Your task to perform on an android device: allow notifications from all sites in the chrome app Image 0: 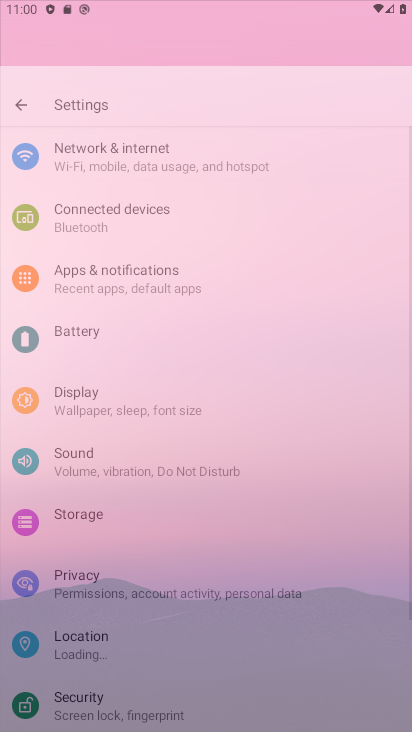
Step 0: press home button
Your task to perform on an android device: allow notifications from all sites in the chrome app Image 1: 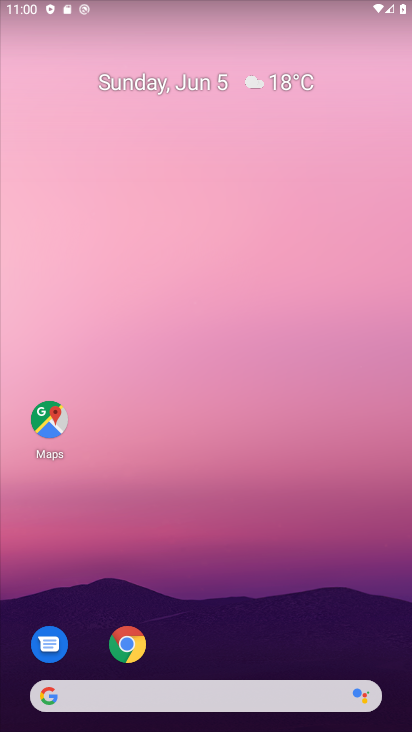
Step 1: drag from (272, 714) to (200, 243)
Your task to perform on an android device: allow notifications from all sites in the chrome app Image 2: 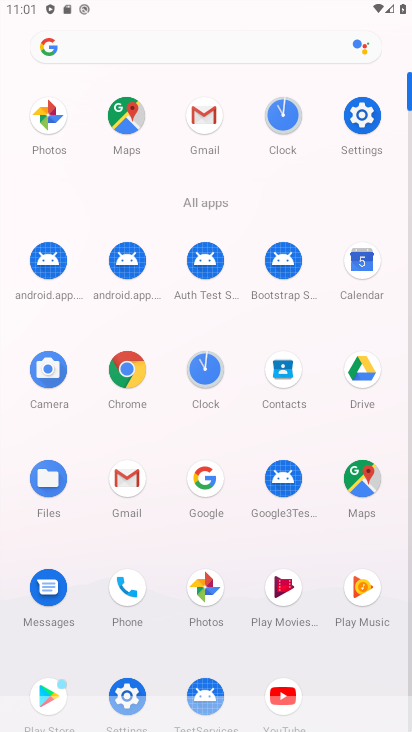
Step 2: click (116, 370)
Your task to perform on an android device: allow notifications from all sites in the chrome app Image 3: 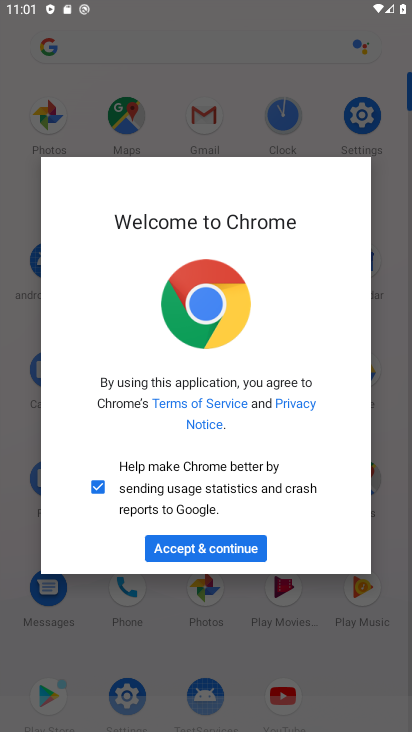
Step 3: click (215, 554)
Your task to perform on an android device: allow notifications from all sites in the chrome app Image 4: 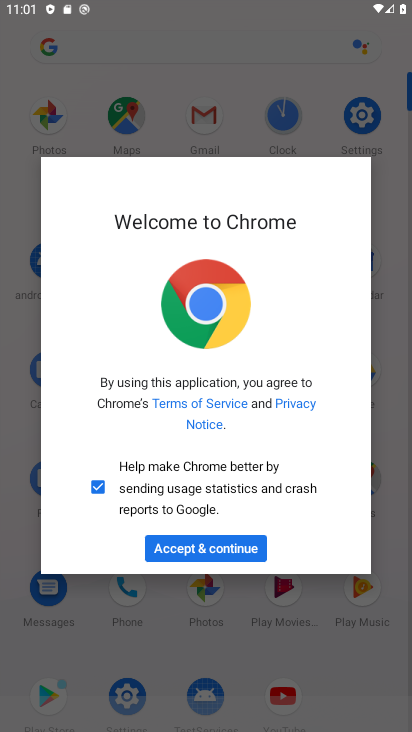
Step 4: click (216, 539)
Your task to perform on an android device: allow notifications from all sites in the chrome app Image 5: 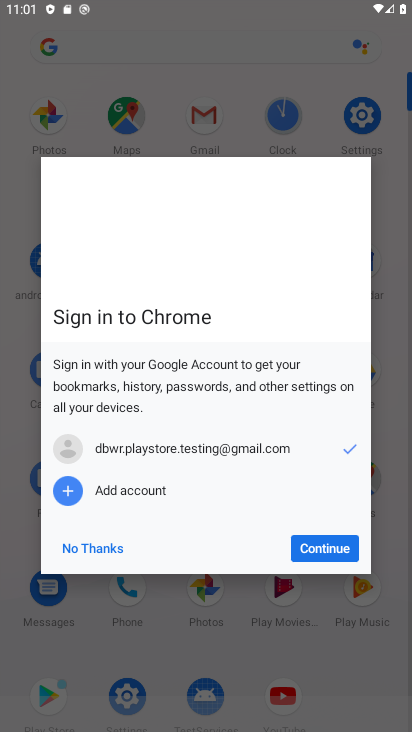
Step 5: click (294, 547)
Your task to perform on an android device: allow notifications from all sites in the chrome app Image 6: 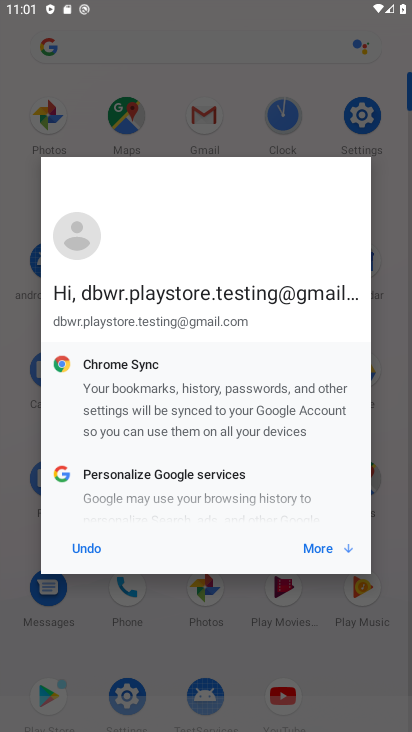
Step 6: click (328, 552)
Your task to perform on an android device: allow notifications from all sites in the chrome app Image 7: 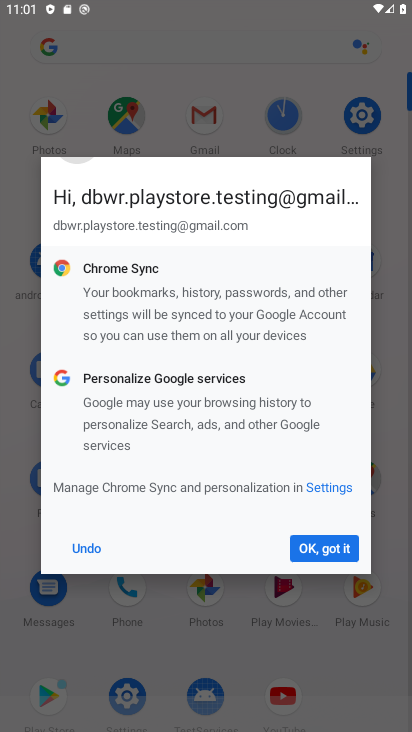
Step 7: click (327, 548)
Your task to perform on an android device: allow notifications from all sites in the chrome app Image 8: 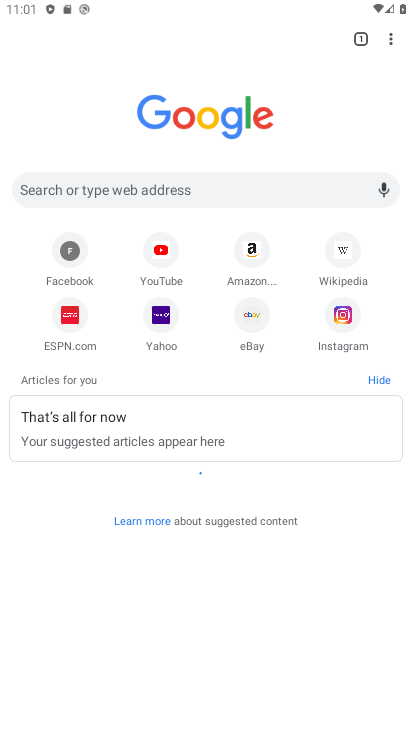
Step 8: click (392, 45)
Your task to perform on an android device: allow notifications from all sites in the chrome app Image 9: 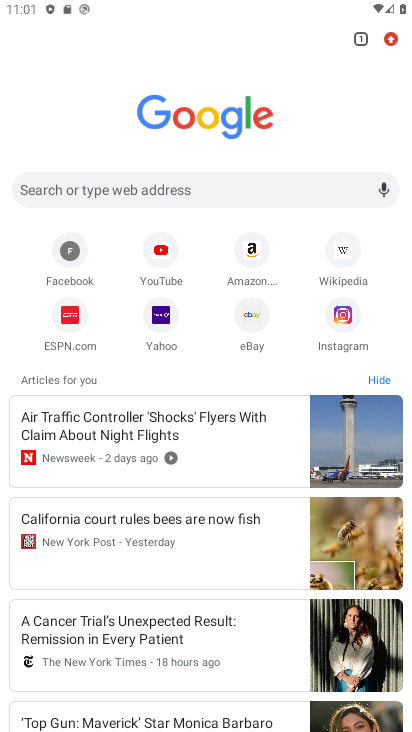
Step 9: click (375, 35)
Your task to perform on an android device: allow notifications from all sites in the chrome app Image 10: 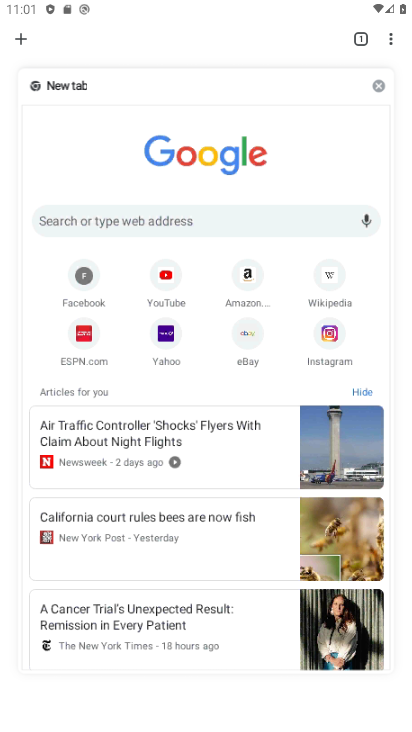
Step 10: click (391, 43)
Your task to perform on an android device: allow notifications from all sites in the chrome app Image 11: 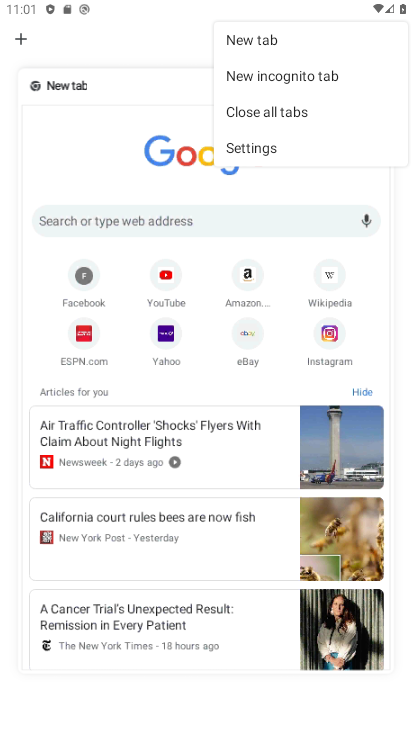
Step 11: click (229, 150)
Your task to perform on an android device: allow notifications from all sites in the chrome app Image 12: 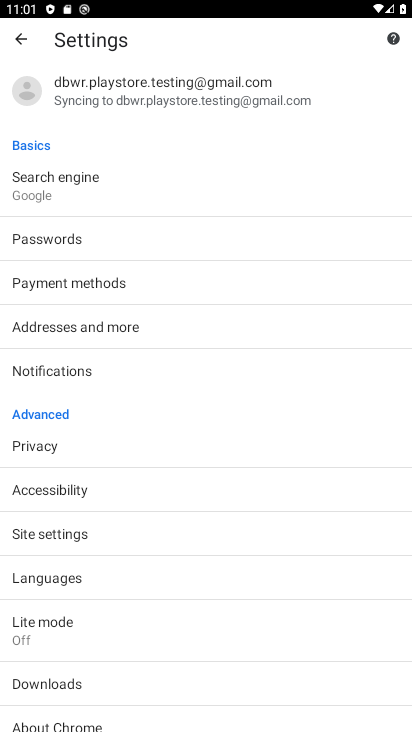
Step 12: drag from (66, 653) to (101, 575)
Your task to perform on an android device: allow notifications from all sites in the chrome app Image 13: 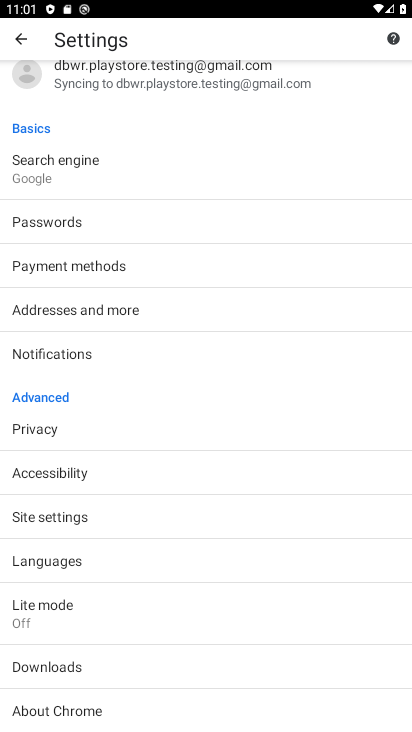
Step 13: click (86, 516)
Your task to perform on an android device: allow notifications from all sites in the chrome app Image 14: 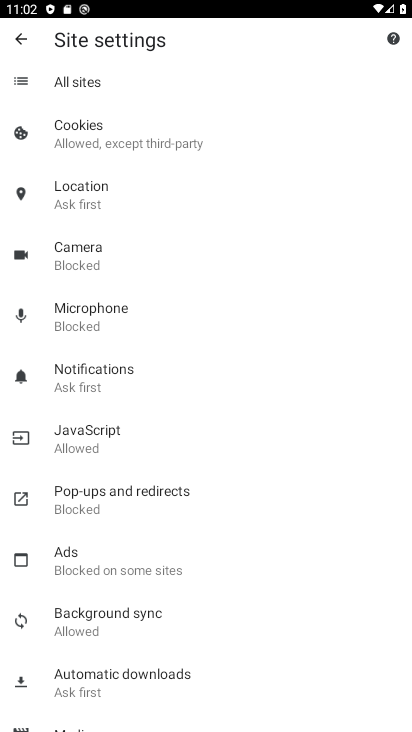
Step 14: click (107, 368)
Your task to perform on an android device: allow notifications from all sites in the chrome app Image 15: 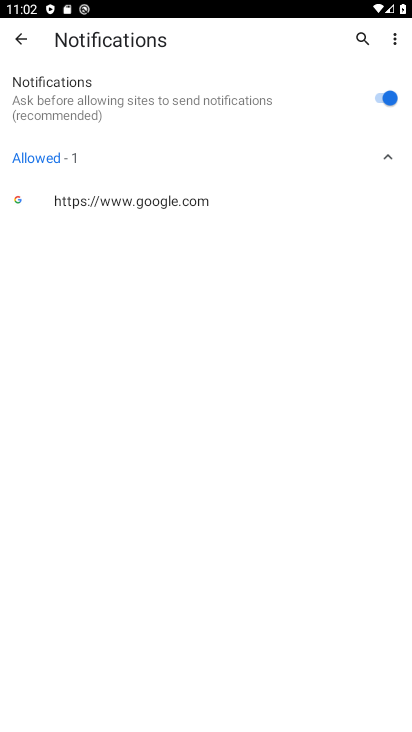
Step 15: task complete